Your task to perform on an android device: install app "Google Play Games" Image 0: 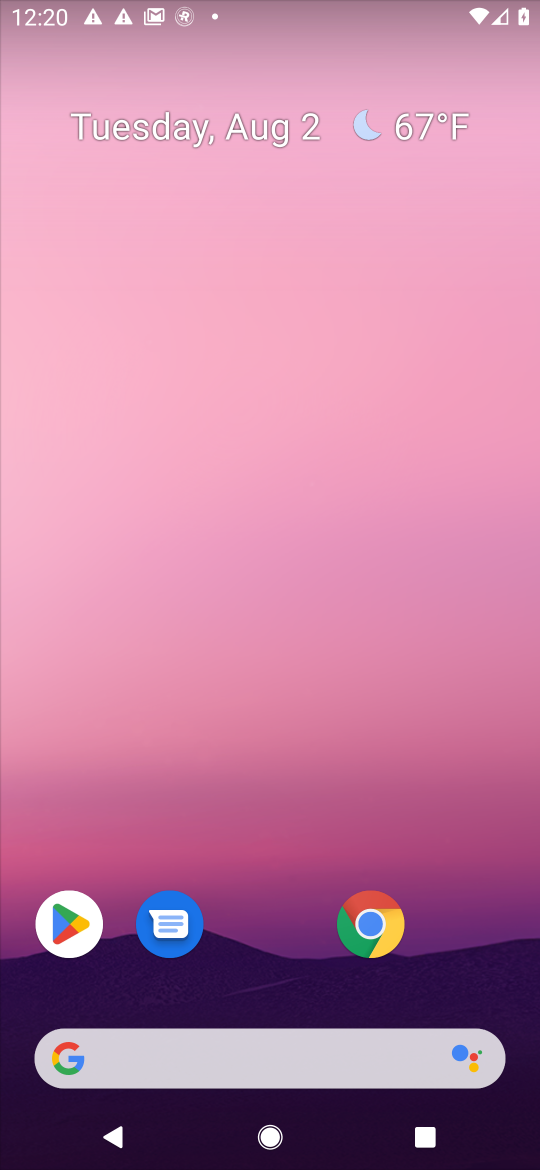
Step 0: click (65, 913)
Your task to perform on an android device: install app "Google Play Games" Image 1: 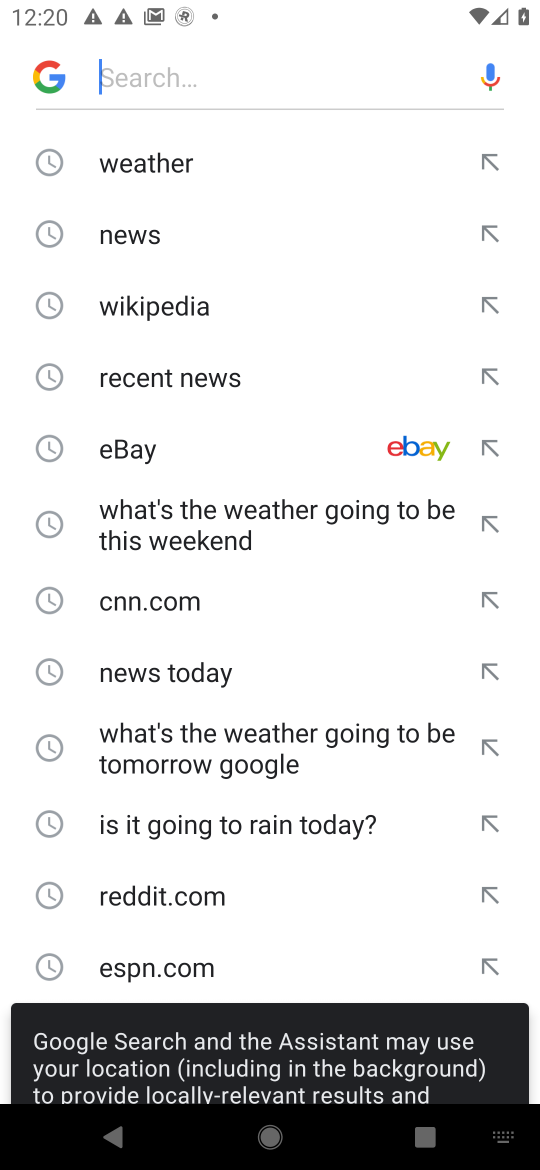
Step 1: press home button
Your task to perform on an android device: install app "Google Play Games" Image 2: 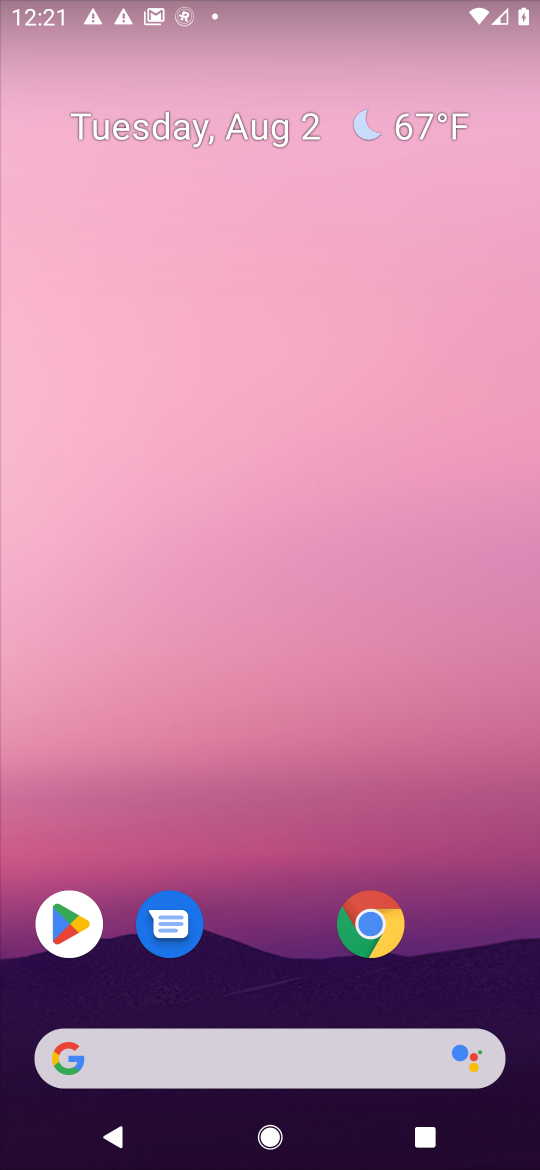
Step 2: click (61, 910)
Your task to perform on an android device: install app "Google Play Games" Image 3: 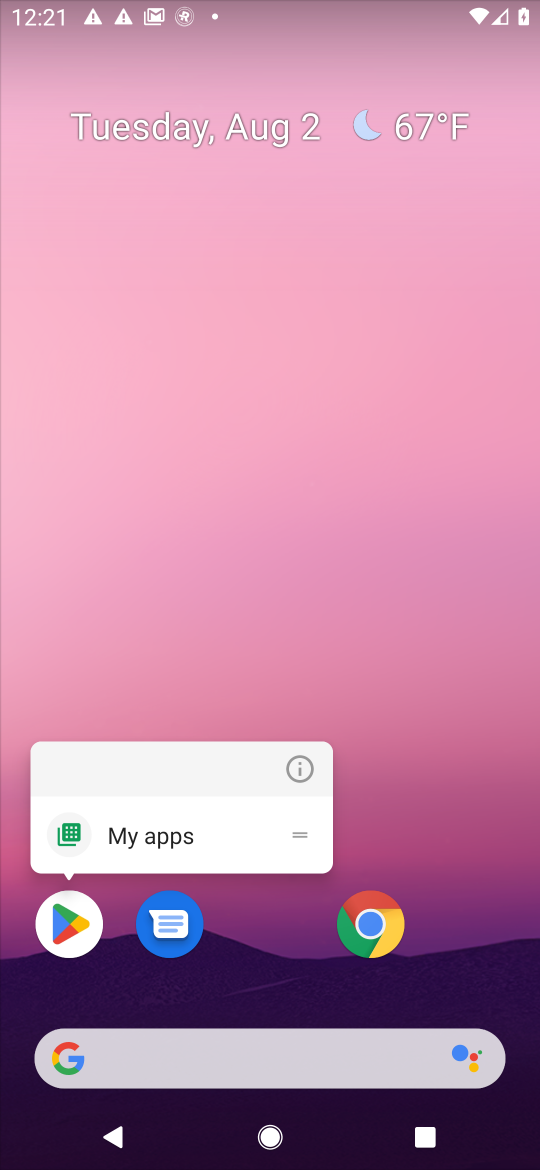
Step 3: click (62, 916)
Your task to perform on an android device: install app "Google Play Games" Image 4: 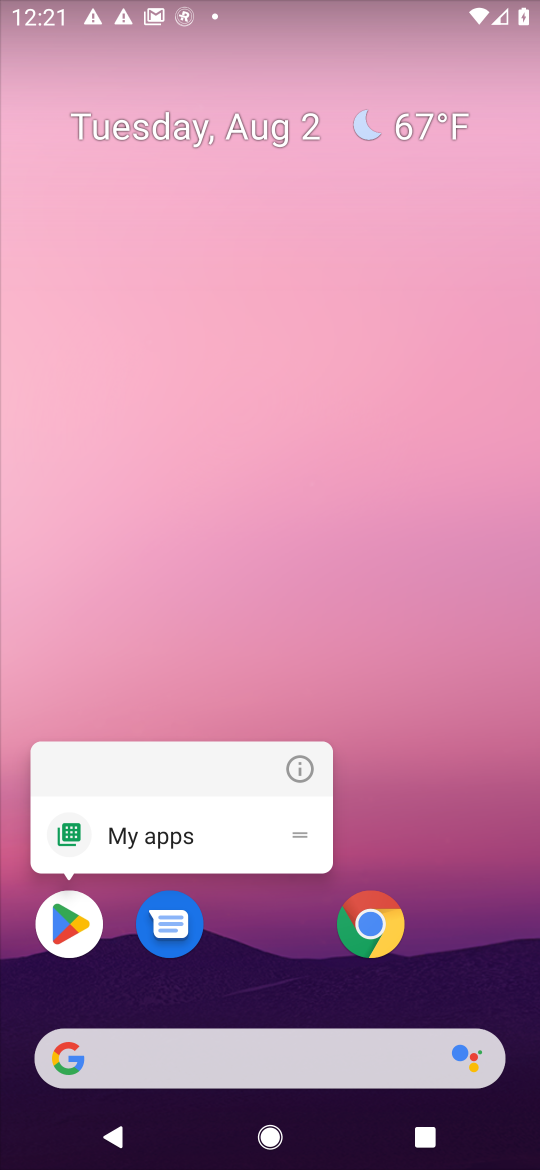
Step 4: click (66, 916)
Your task to perform on an android device: install app "Google Play Games" Image 5: 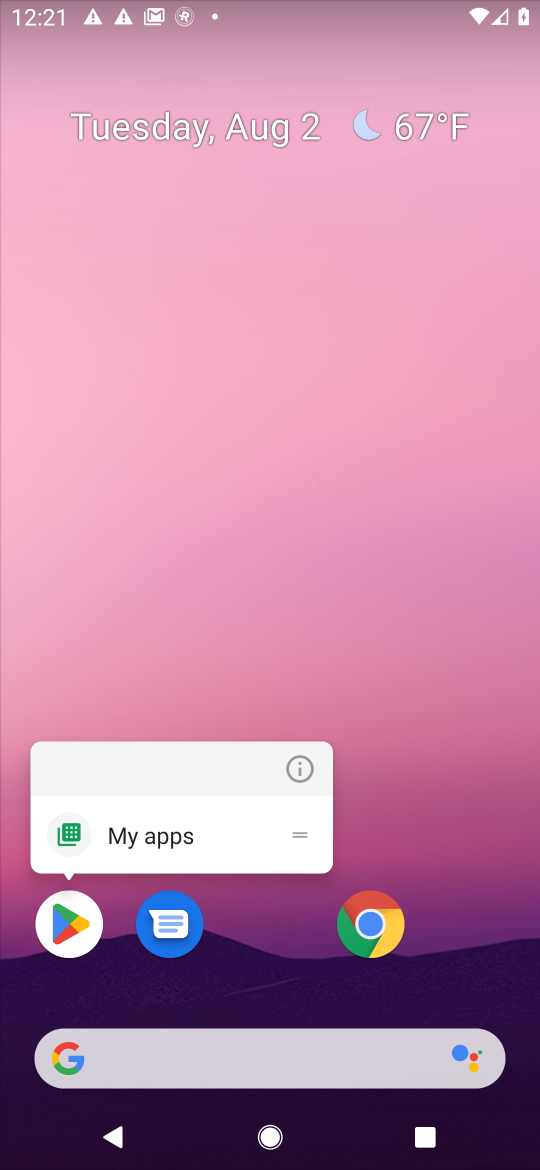
Step 5: click (68, 914)
Your task to perform on an android device: install app "Google Play Games" Image 6: 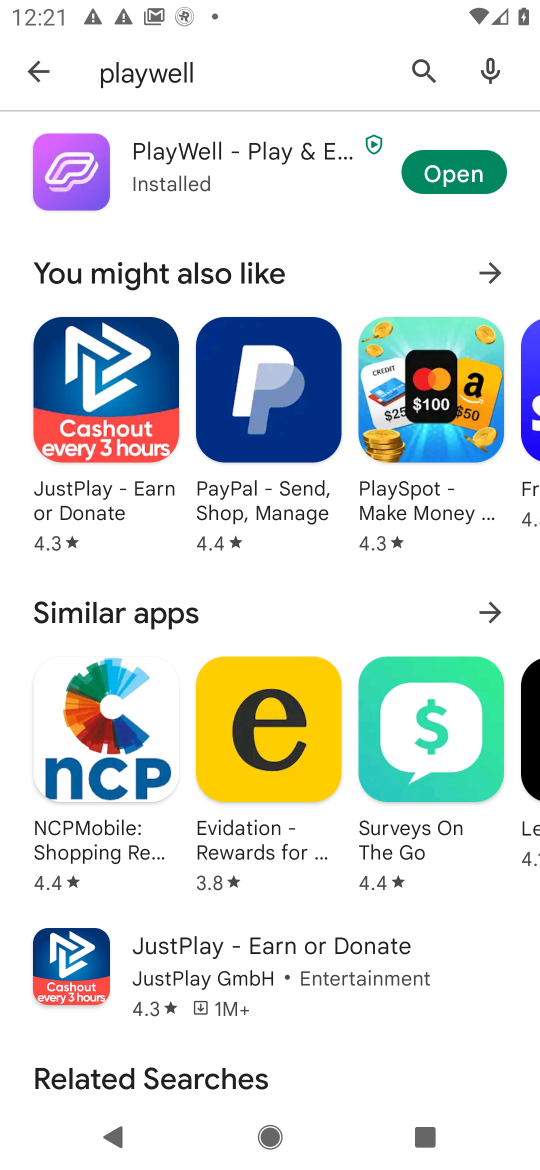
Step 6: click (410, 67)
Your task to perform on an android device: install app "Google Play Games" Image 7: 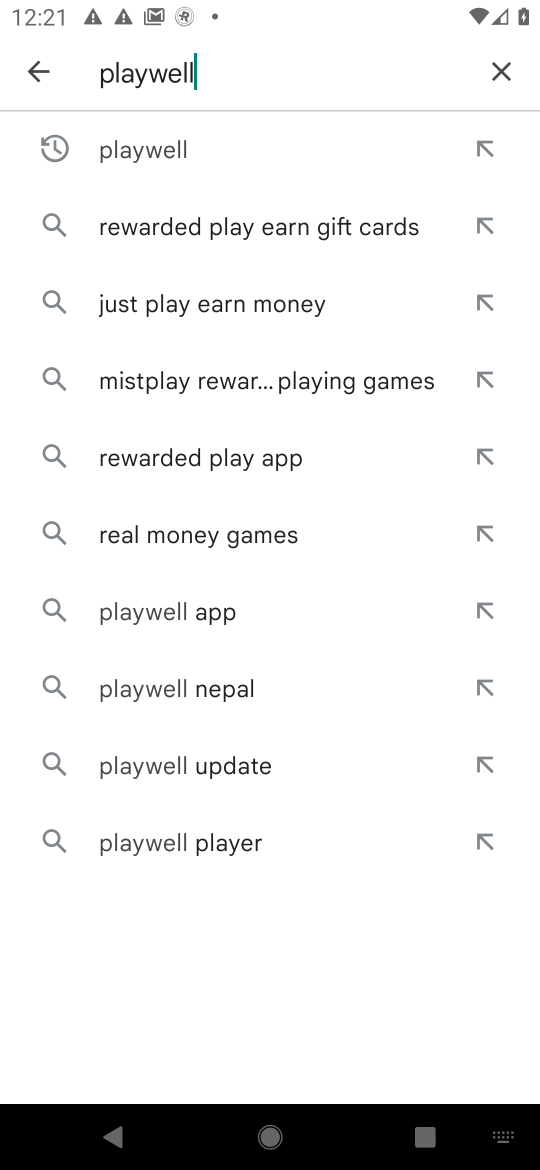
Step 7: click (498, 71)
Your task to perform on an android device: install app "Google Play Games" Image 8: 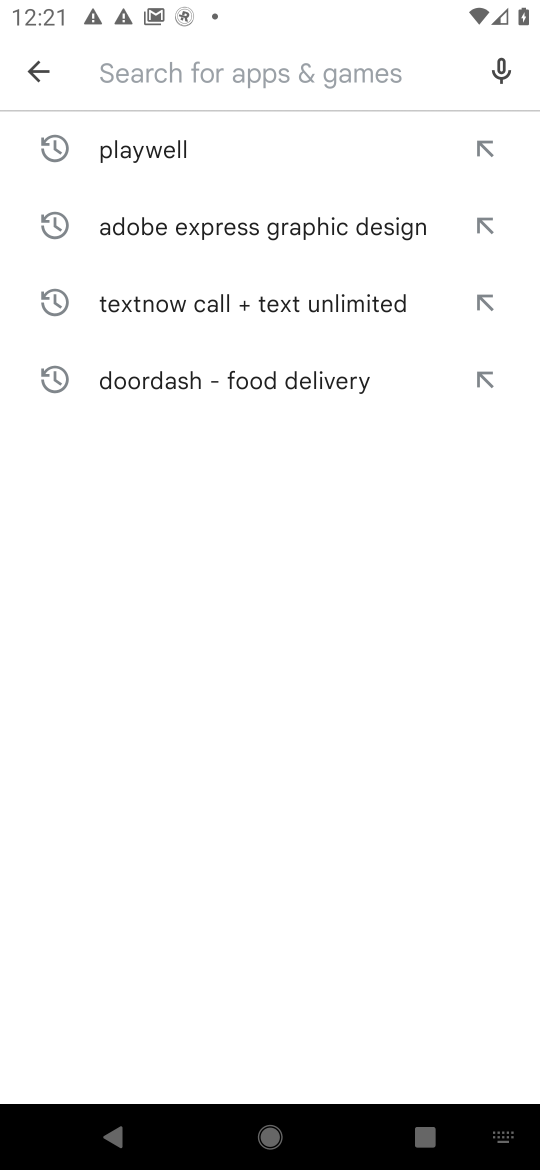
Step 8: type "Google Play Games"
Your task to perform on an android device: install app "Google Play Games" Image 9: 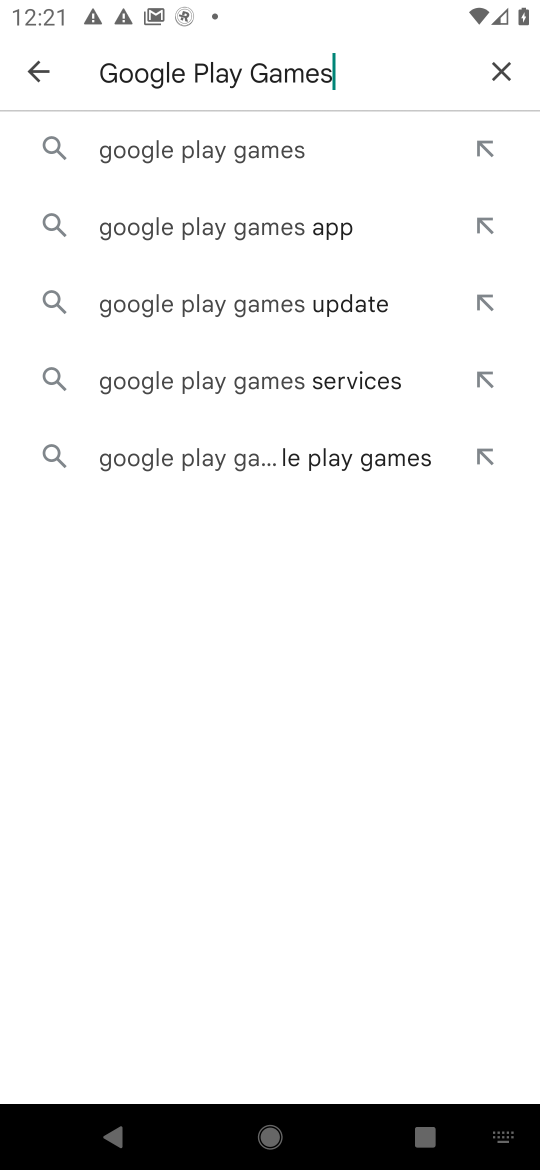
Step 9: click (281, 148)
Your task to perform on an android device: install app "Google Play Games" Image 10: 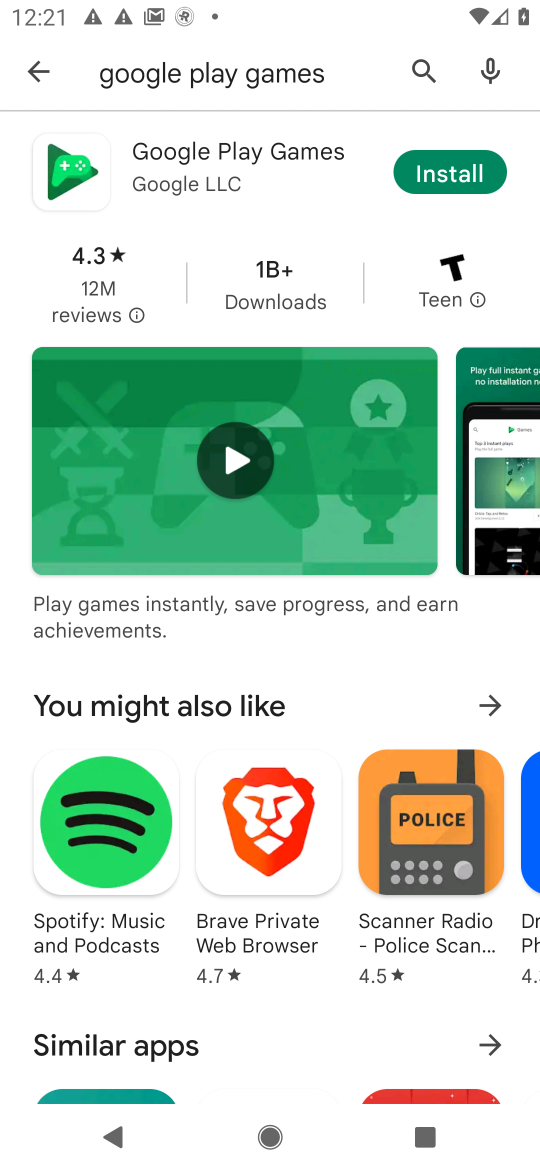
Step 10: click (449, 160)
Your task to perform on an android device: install app "Google Play Games" Image 11: 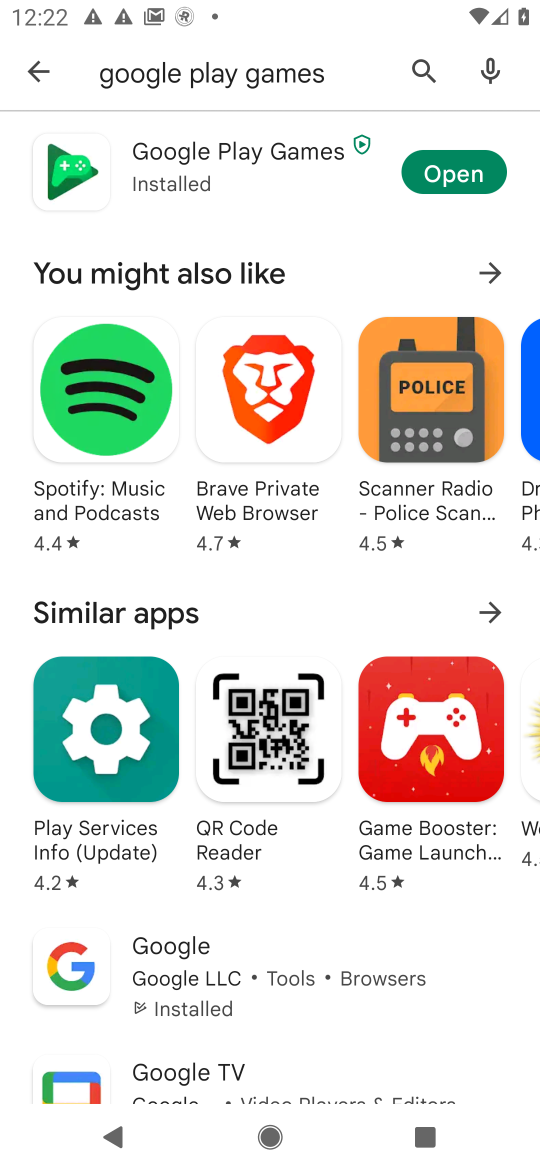
Step 11: click (447, 175)
Your task to perform on an android device: install app "Google Play Games" Image 12: 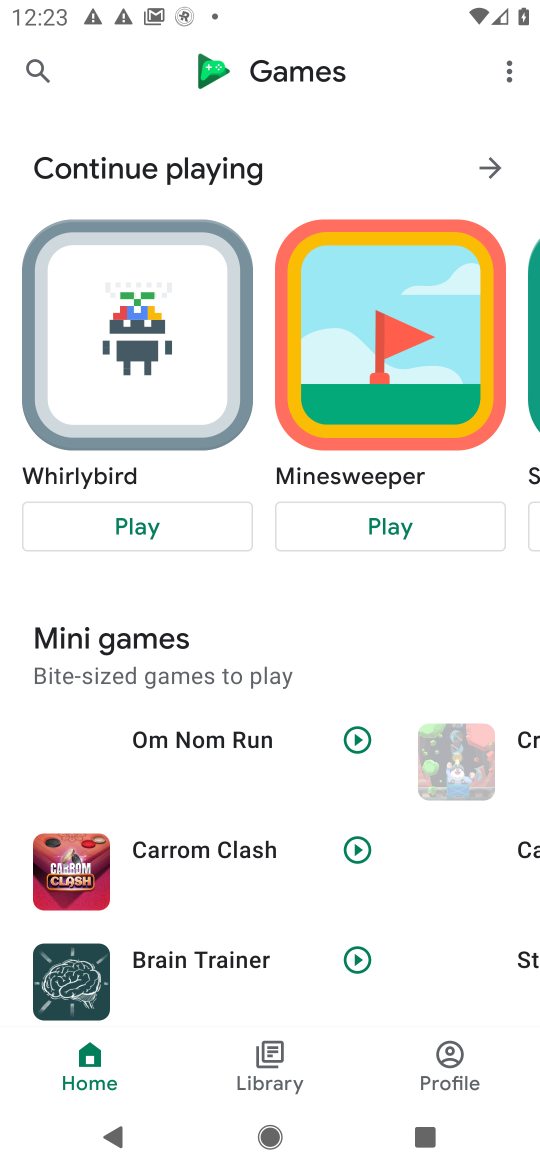
Step 12: task complete